Your task to perform on an android device: Set the phone to "Do not disturb". Image 0: 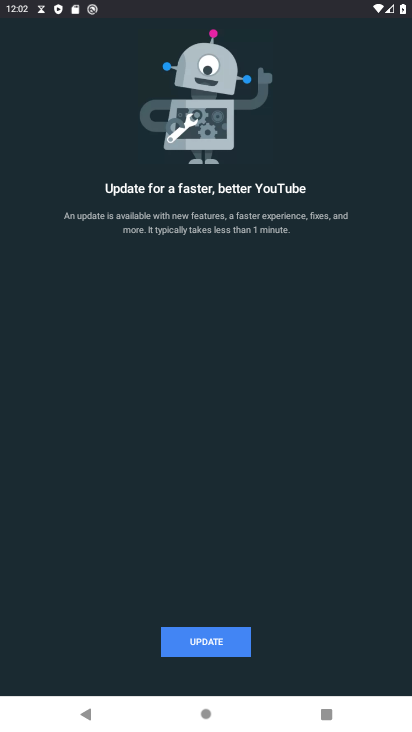
Step 0: press home button
Your task to perform on an android device: Set the phone to "Do not disturb". Image 1: 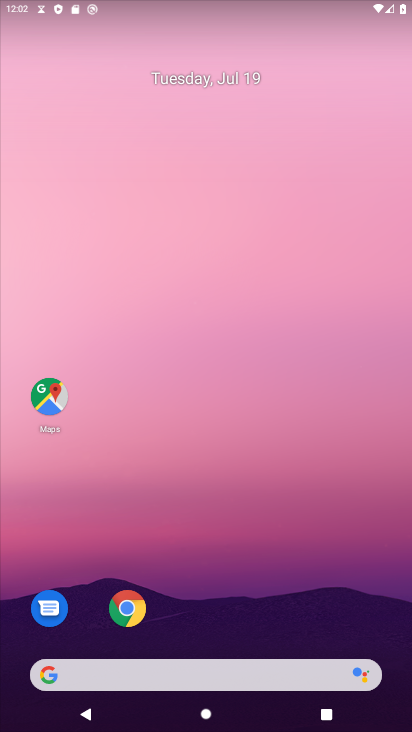
Step 1: drag from (178, 503) to (318, 6)
Your task to perform on an android device: Set the phone to "Do not disturb". Image 2: 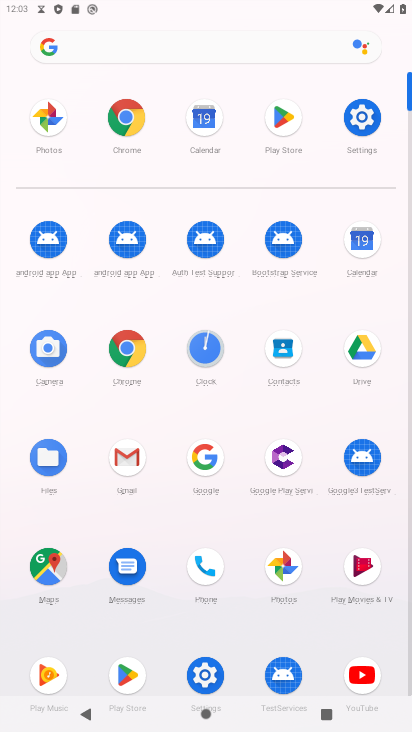
Step 2: click (355, 116)
Your task to perform on an android device: Set the phone to "Do not disturb". Image 3: 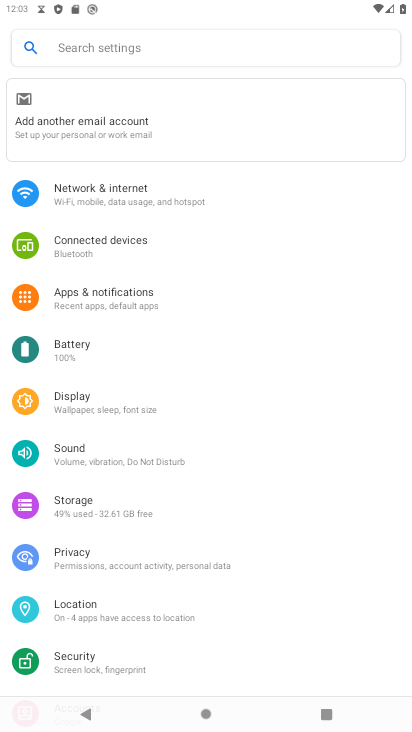
Step 3: drag from (113, 616) to (133, 475)
Your task to perform on an android device: Set the phone to "Do not disturb". Image 4: 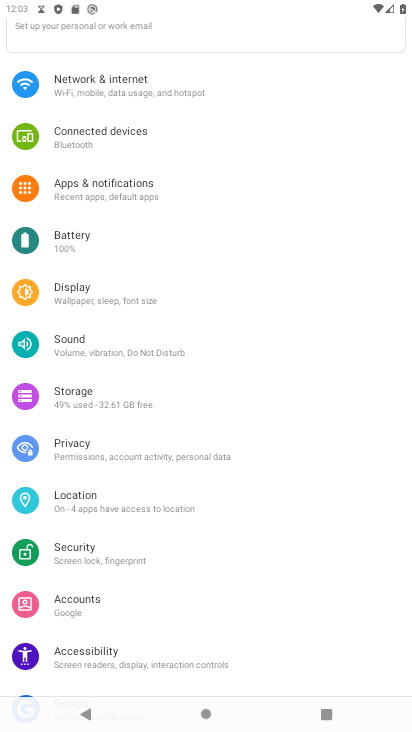
Step 4: click (77, 344)
Your task to perform on an android device: Set the phone to "Do not disturb". Image 5: 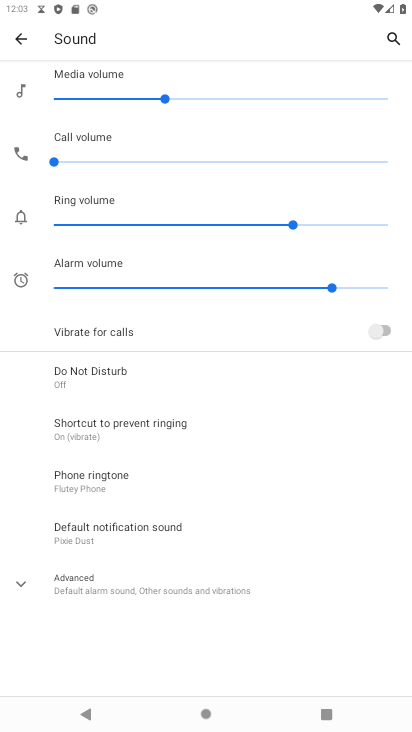
Step 5: click (107, 386)
Your task to perform on an android device: Set the phone to "Do not disturb". Image 6: 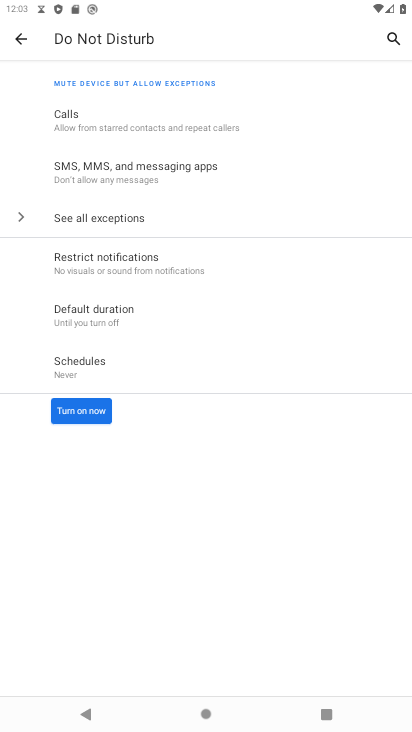
Step 6: click (86, 398)
Your task to perform on an android device: Set the phone to "Do not disturb". Image 7: 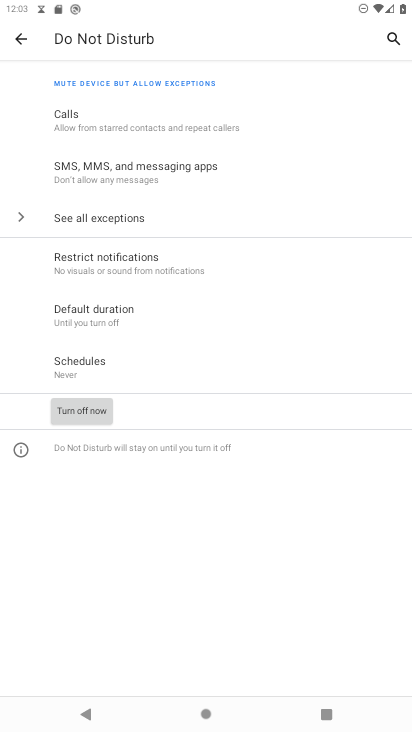
Step 7: task complete